Your task to perform on an android device: allow cookies in the chrome app Image 0: 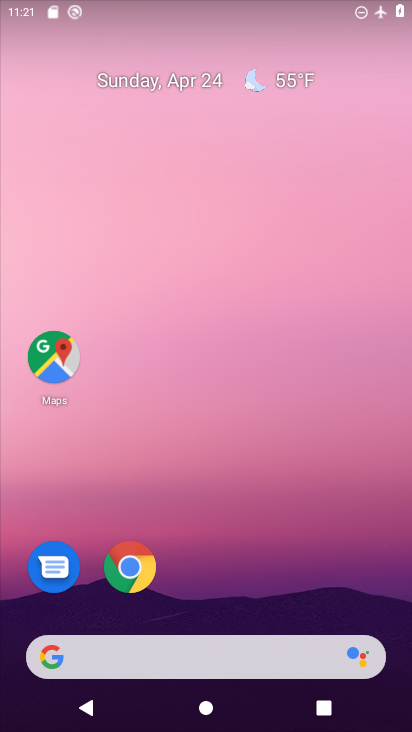
Step 0: click (131, 561)
Your task to perform on an android device: allow cookies in the chrome app Image 1: 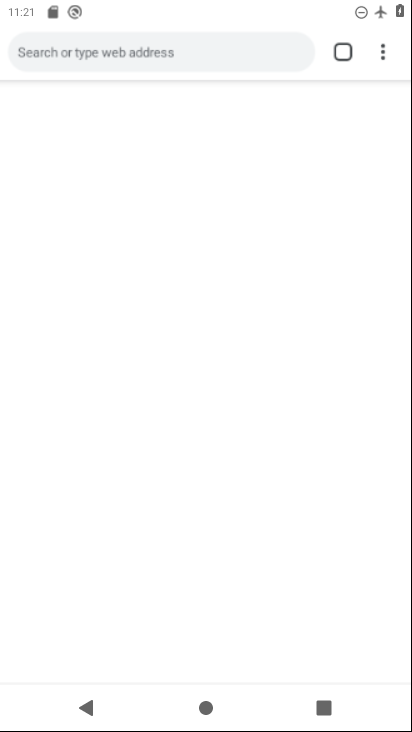
Step 1: click (131, 561)
Your task to perform on an android device: allow cookies in the chrome app Image 2: 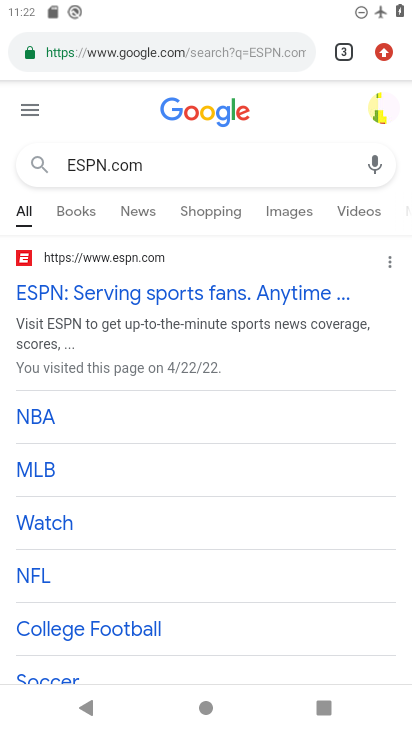
Step 2: click (182, 175)
Your task to perform on an android device: allow cookies in the chrome app Image 3: 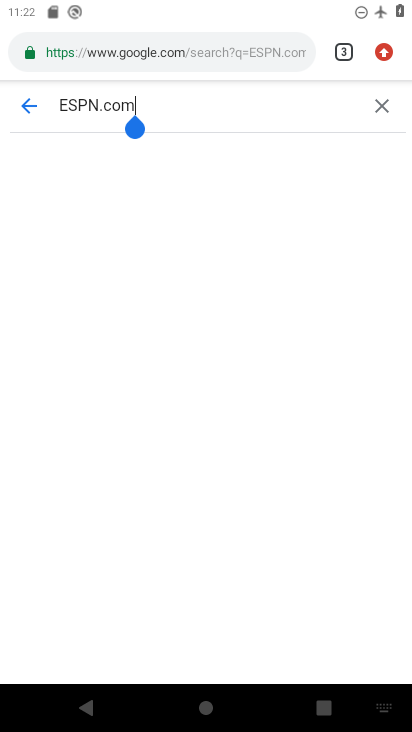
Step 3: click (302, 46)
Your task to perform on an android device: allow cookies in the chrome app Image 4: 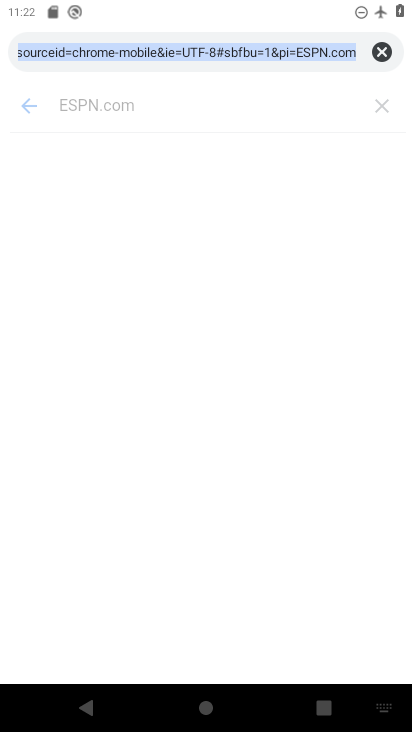
Step 4: click (382, 47)
Your task to perform on an android device: allow cookies in the chrome app Image 5: 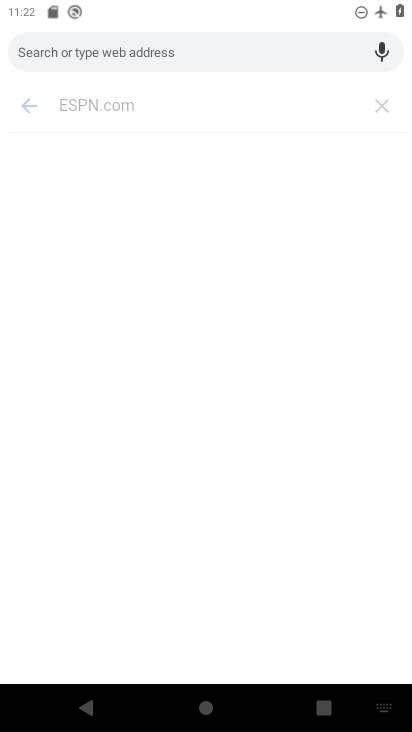
Step 5: press back button
Your task to perform on an android device: allow cookies in the chrome app Image 6: 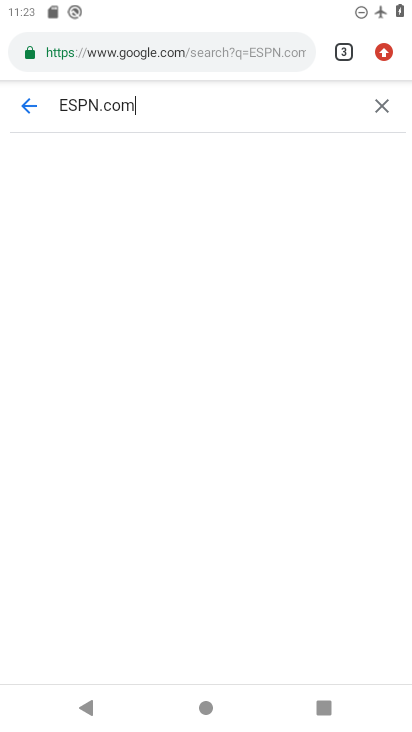
Step 6: click (378, 106)
Your task to perform on an android device: allow cookies in the chrome app Image 7: 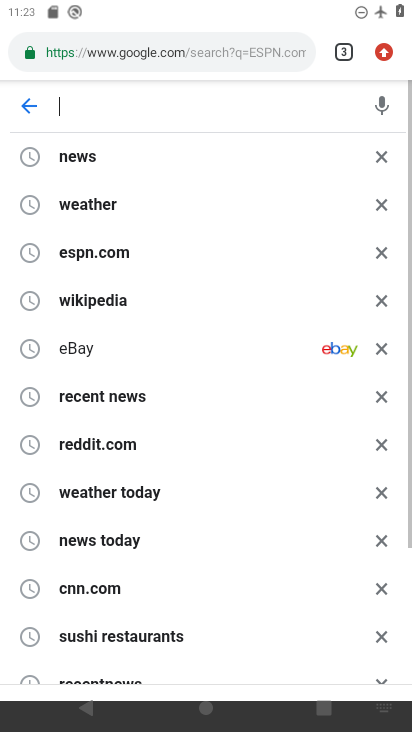
Step 7: click (308, 47)
Your task to perform on an android device: allow cookies in the chrome app Image 8: 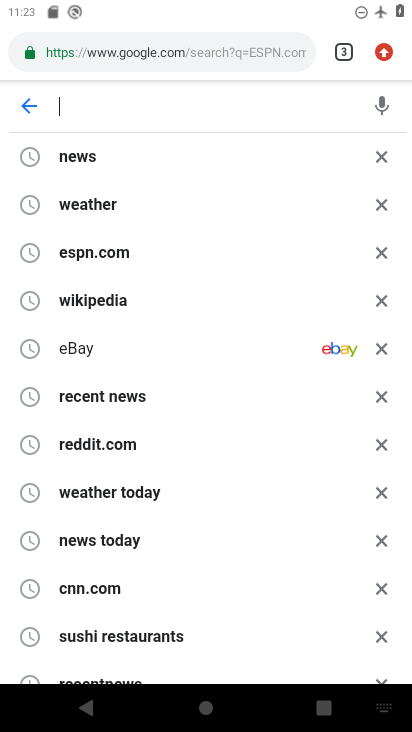
Step 8: click (307, 48)
Your task to perform on an android device: allow cookies in the chrome app Image 9: 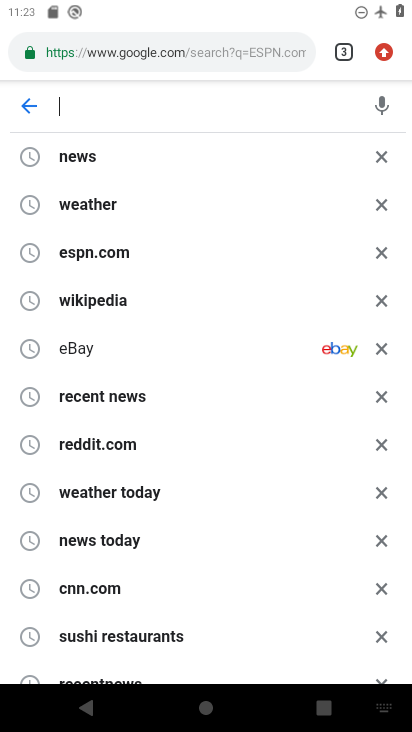
Step 9: click (299, 43)
Your task to perform on an android device: allow cookies in the chrome app Image 10: 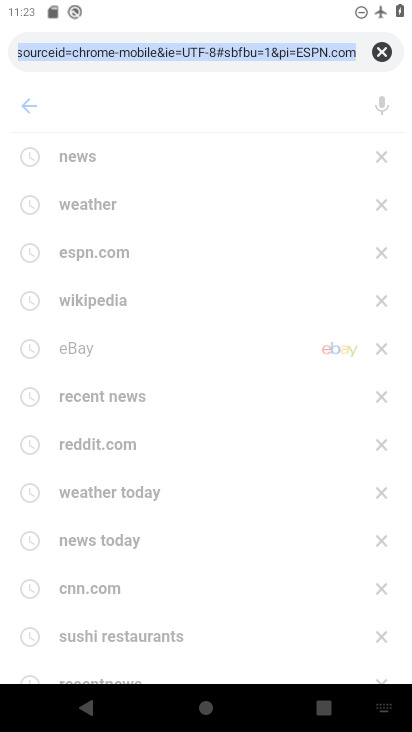
Step 10: click (381, 48)
Your task to perform on an android device: allow cookies in the chrome app Image 11: 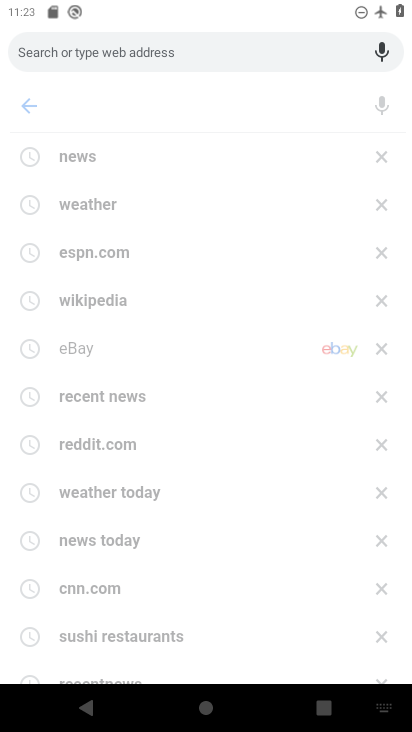
Step 11: press back button
Your task to perform on an android device: allow cookies in the chrome app Image 12: 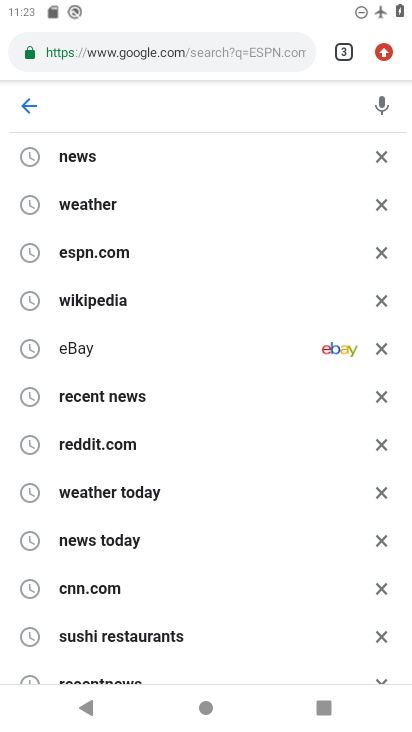
Step 12: press back button
Your task to perform on an android device: allow cookies in the chrome app Image 13: 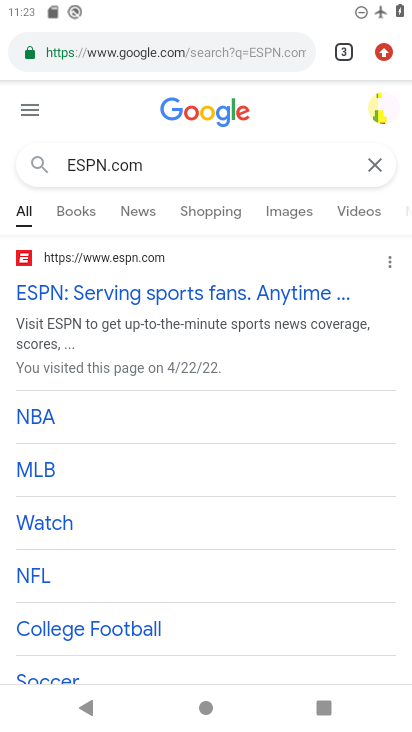
Step 13: click (374, 46)
Your task to perform on an android device: allow cookies in the chrome app Image 14: 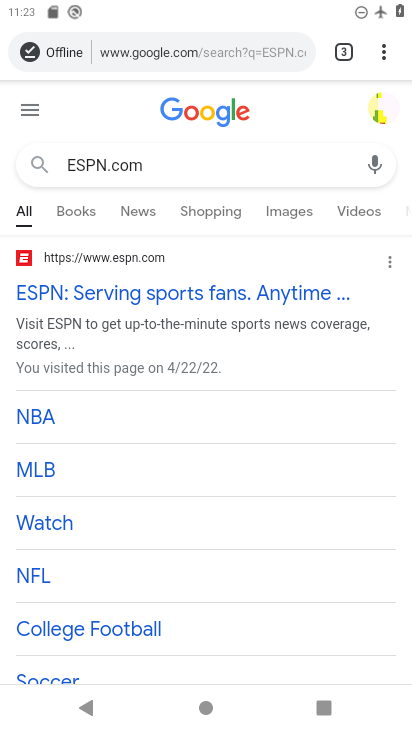
Step 14: click (383, 51)
Your task to perform on an android device: allow cookies in the chrome app Image 15: 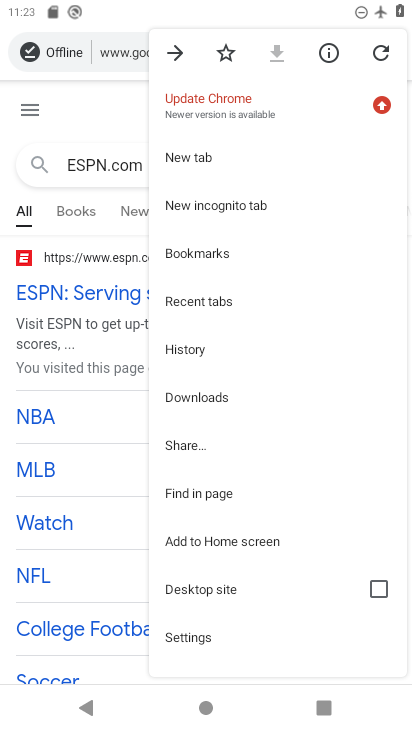
Step 15: click (193, 345)
Your task to perform on an android device: allow cookies in the chrome app Image 16: 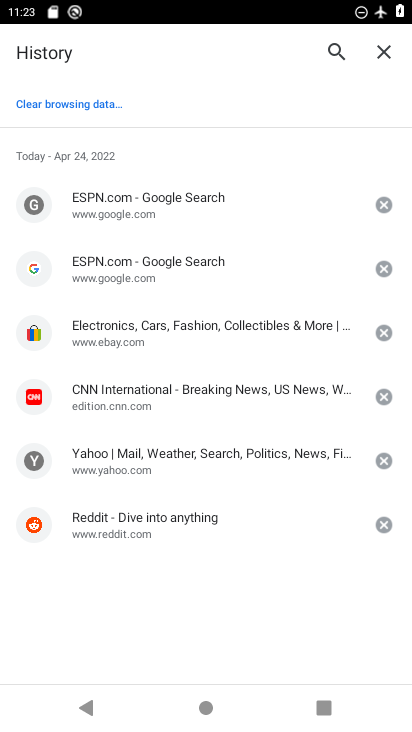
Step 16: press home button
Your task to perform on an android device: allow cookies in the chrome app Image 17: 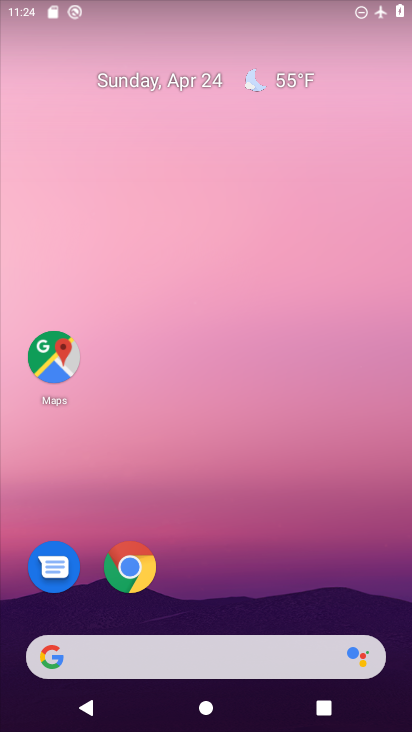
Step 17: click (130, 564)
Your task to perform on an android device: allow cookies in the chrome app Image 18: 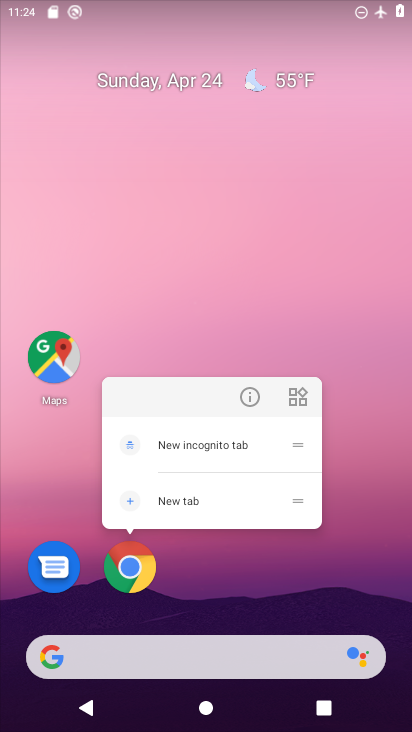
Step 18: click (130, 564)
Your task to perform on an android device: allow cookies in the chrome app Image 19: 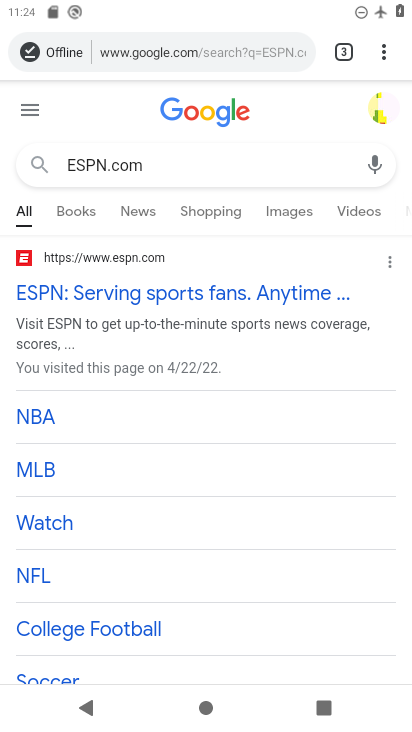
Step 19: click (130, 564)
Your task to perform on an android device: allow cookies in the chrome app Image 20: 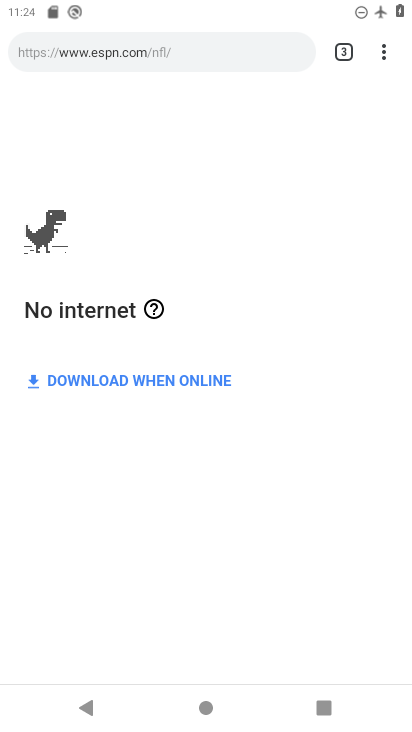
Step 20: task complete